Your task to perform on an android device: Open network settings Image 0: 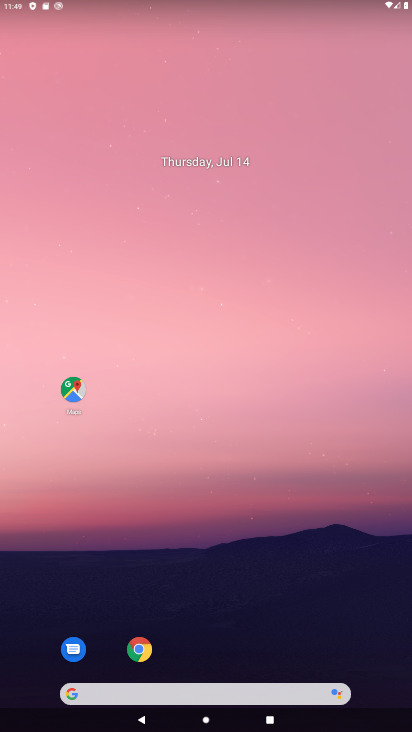
Step 0: drag from (181, 663) to (190, 203)
Your task to perform on an android device: Open network settings Image 1: 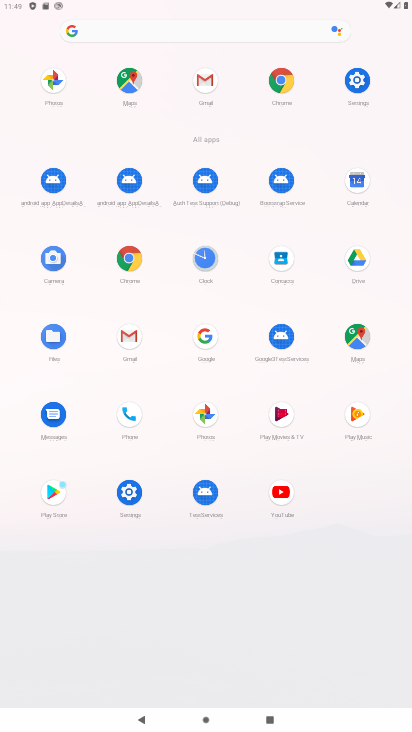
Step 1: click (357, 78)
Your task to perform on an android device: Open network settings Image 2: 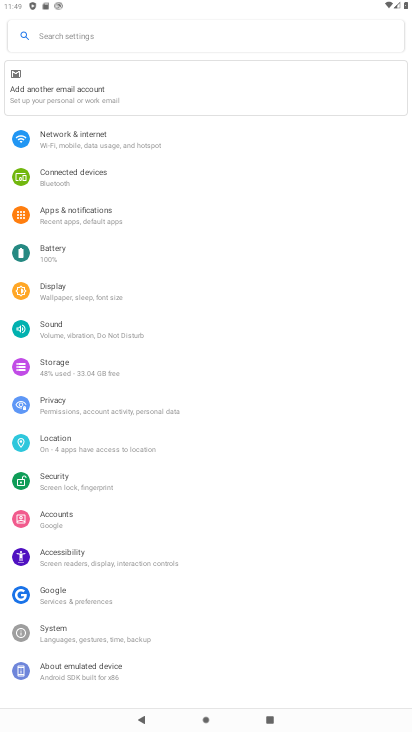
Step 2: click (82, 143)
Your task to perform on an android device: Open network settings Image 3: 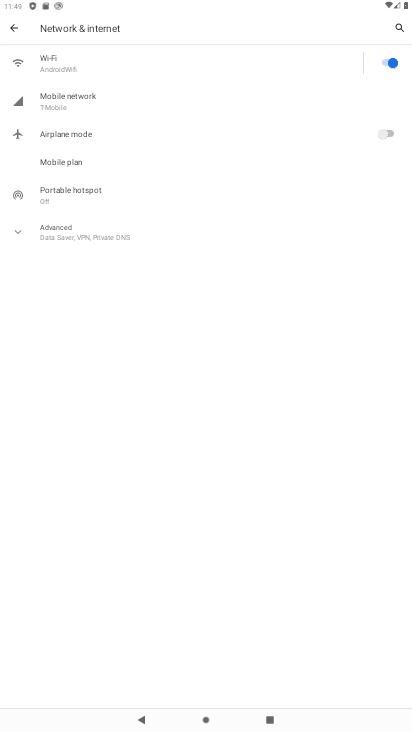
Step 3: task complete